Your task to perform on an android device: turn on wifi Image 0: 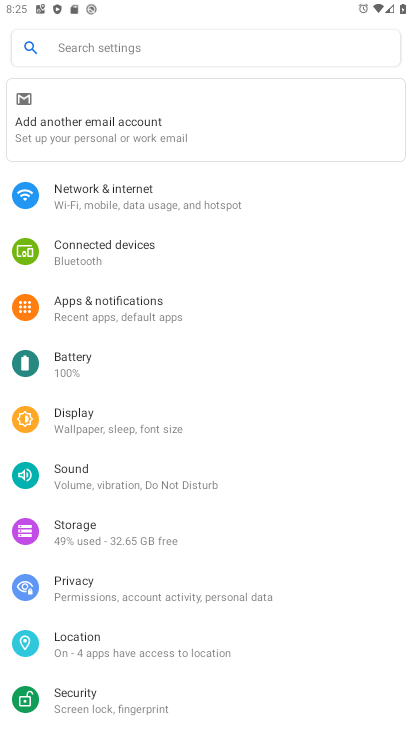
Step 0: click (135, 199)
Your task to perform on an android device: turn on wifi Image 1: 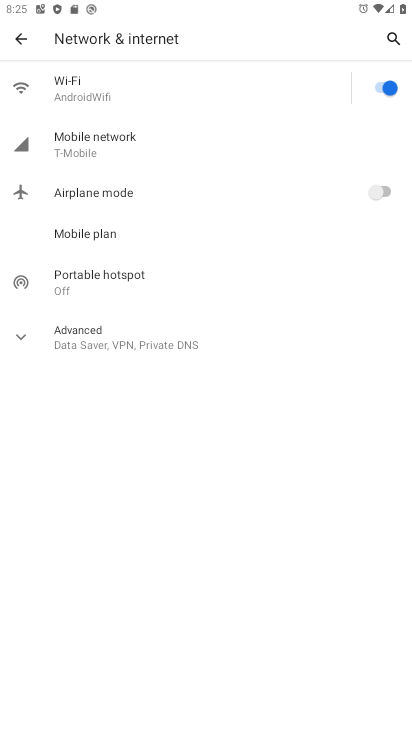
Step 1: task complete